Your task to perform on an android device: change your default location settings in chrome Image 0: 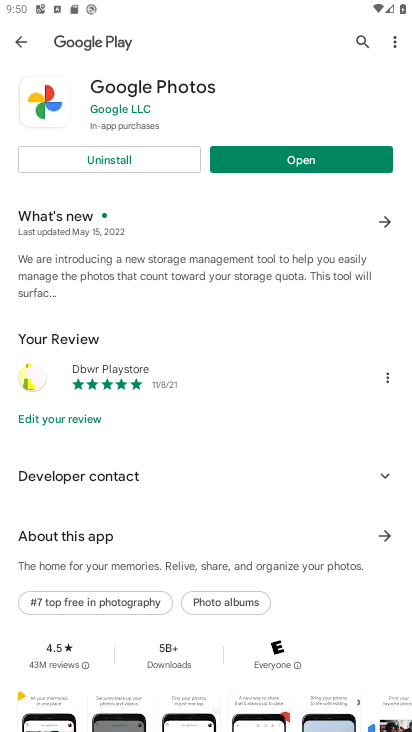
Step 0: click (261, 165)
Your task to perform on an android device: change your default location settings in chrome Image 1: 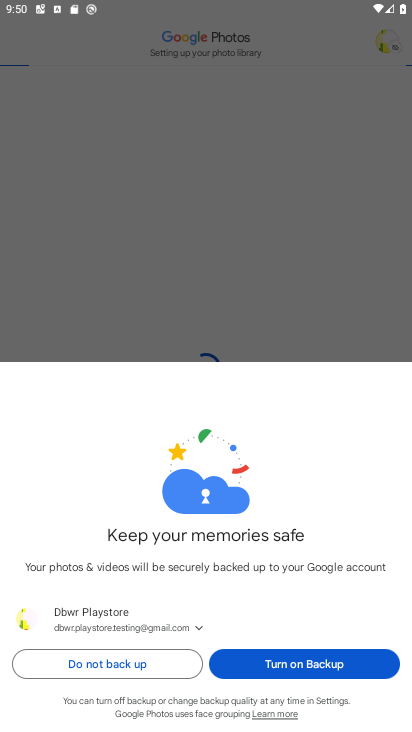
Step 1: click (281, 240)
Your task to perform on an android device: change your default location settings in chrome Image 2: 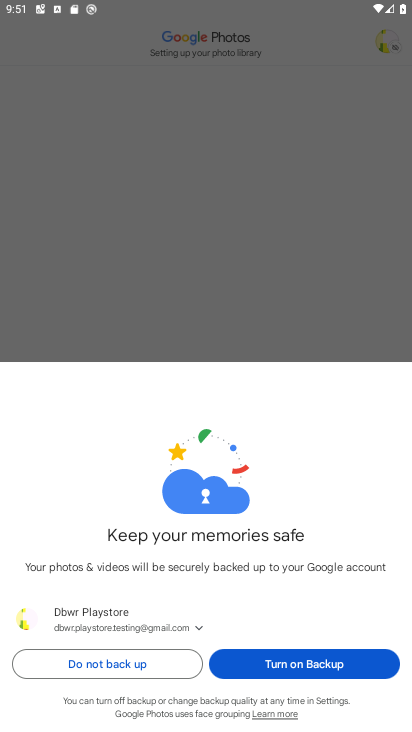
Step 2: press home button
Your task to perform on an android device: change your default location settings in chrome Image 3: 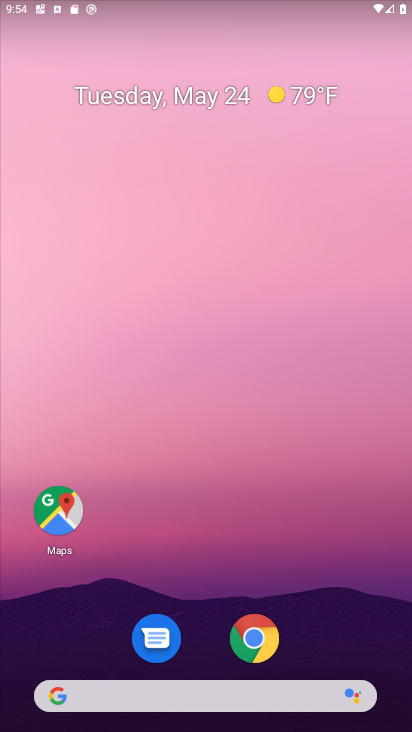
Step 3: drag from (106, 601) to (222, 31)
Your task to perform on an android device: change your default location settings in chrome Image 4: 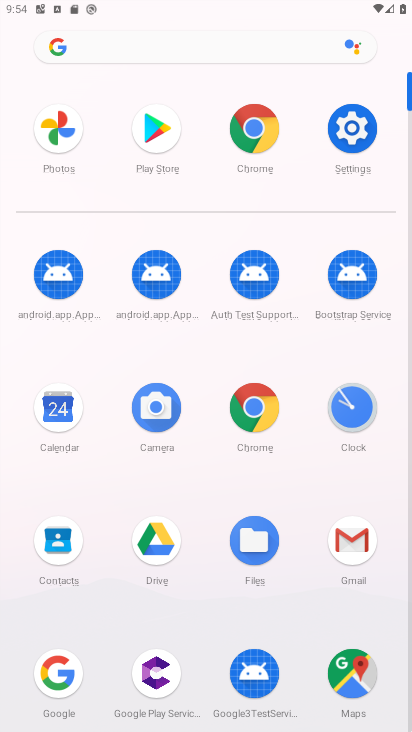
Step 4: click (254, 140)
Your task to perform on an android device: change your default location settings in chrome Image 5: 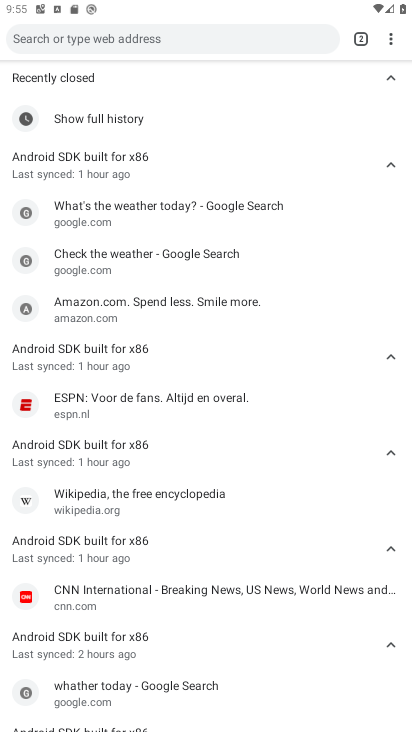
Step 5: click (388, 39)
Your task to perform on an android device: change your default location settings in chrome Image 6: 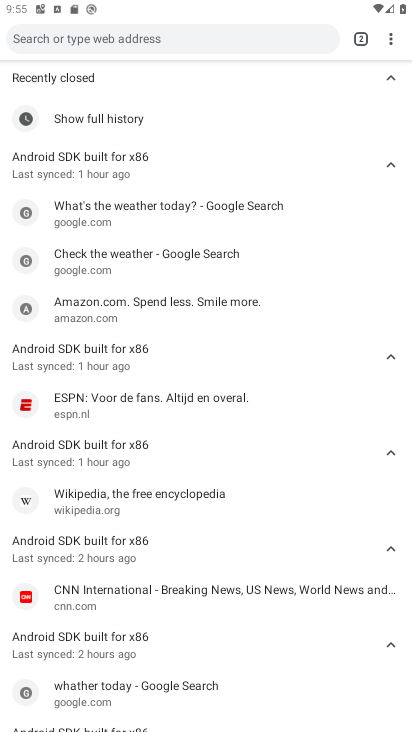
Step 6: click (392, 38)
Your task to perform on an android device: change your default location settings in chrome Image 7: 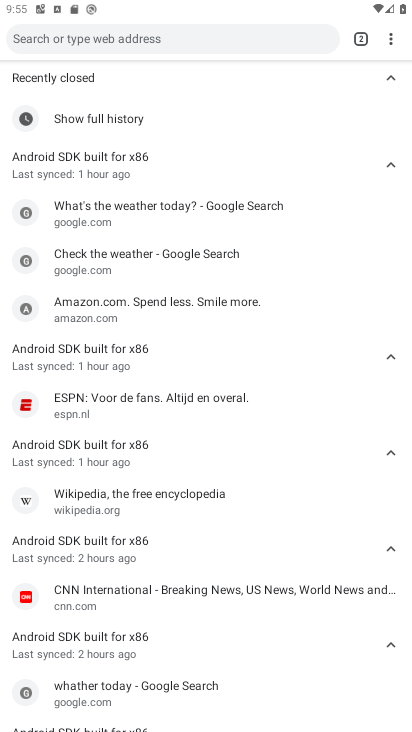
Step 7: click (386, 35)
Your task to perform on an android device: change your default location settings in chrome Image 8: 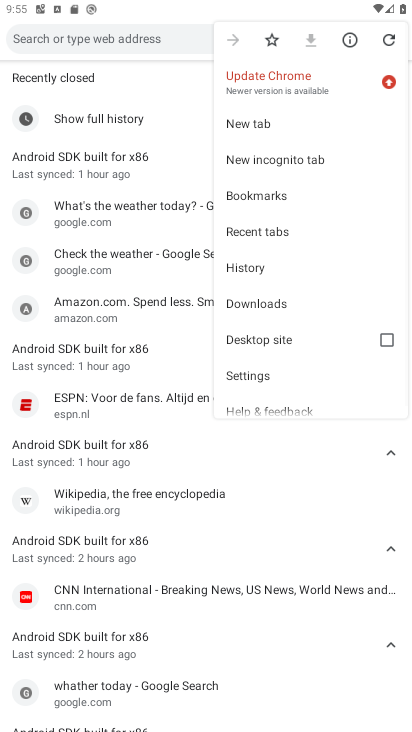
Step 8: click (262, 376)
Your task to perform on an android device: change your default location settings in chrome Image 9: 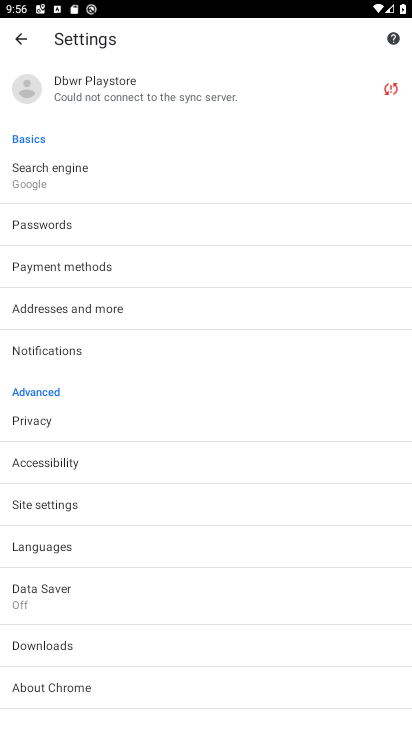
Step 9: click (67, 512)
Your task to perform on an android device: change your default location settings in chrome Image 10: 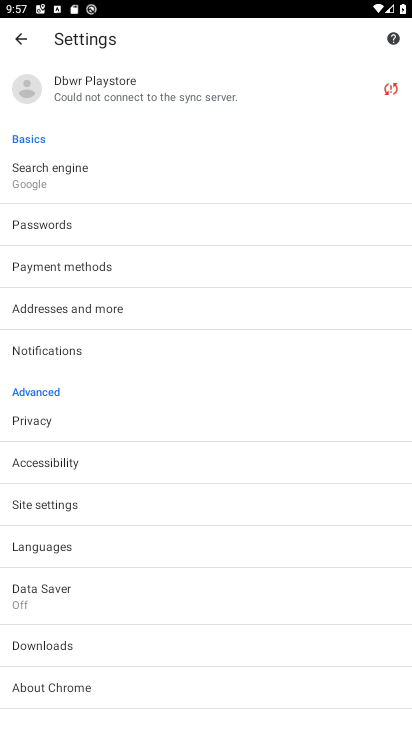
Step 10: click (87, 502)
Your task to perform on an android device: change your default location settings in chrome Image 11: 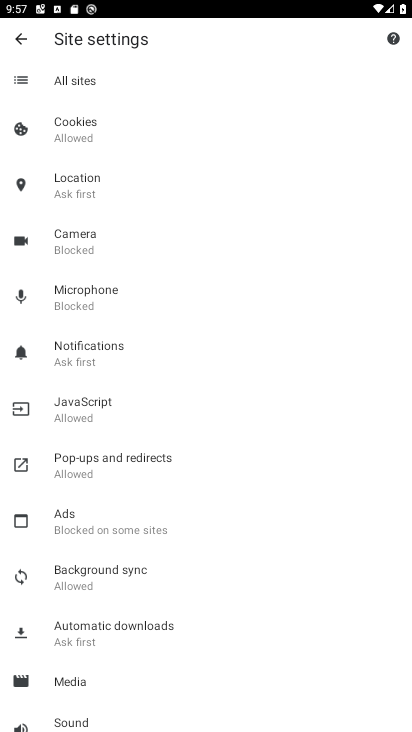
Step 11: click (102, 179)
Your task to perform on an android device: change your default location settings in chrome Image 12: 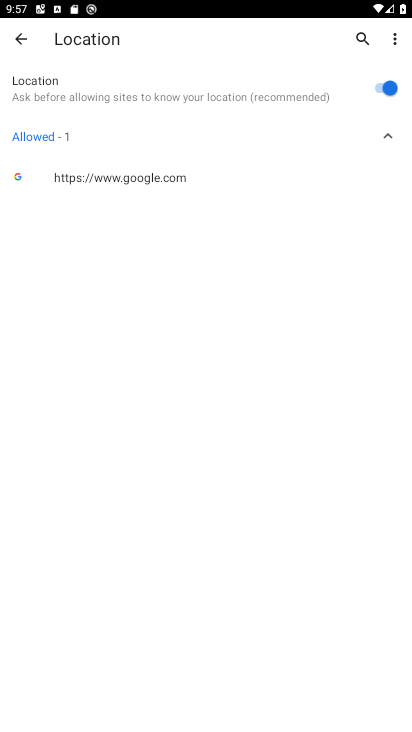
Step 12: click (385, 86)
Your task to perform on an android device: change your default location settings in chrome Image 13: 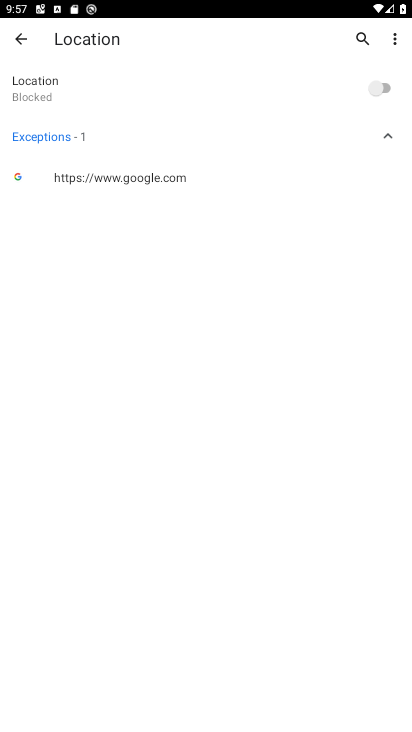
Step 13: task complete